Your task to perform on an android device: move a message to another label in the gmail app Image 0: 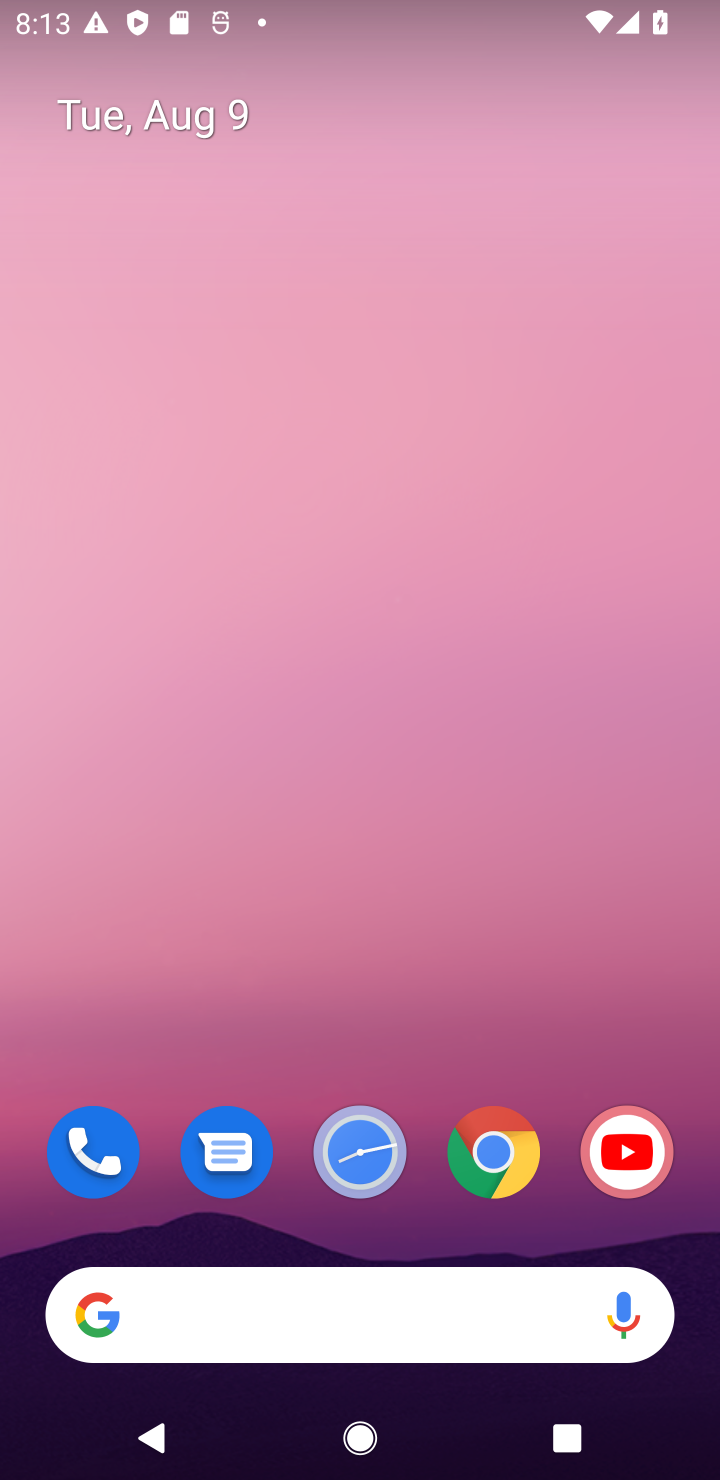
Step 0: drag from (337, 959) to (366, 290)
Your task to perform on an android device: move a message to another label in the gmail app Image 1: 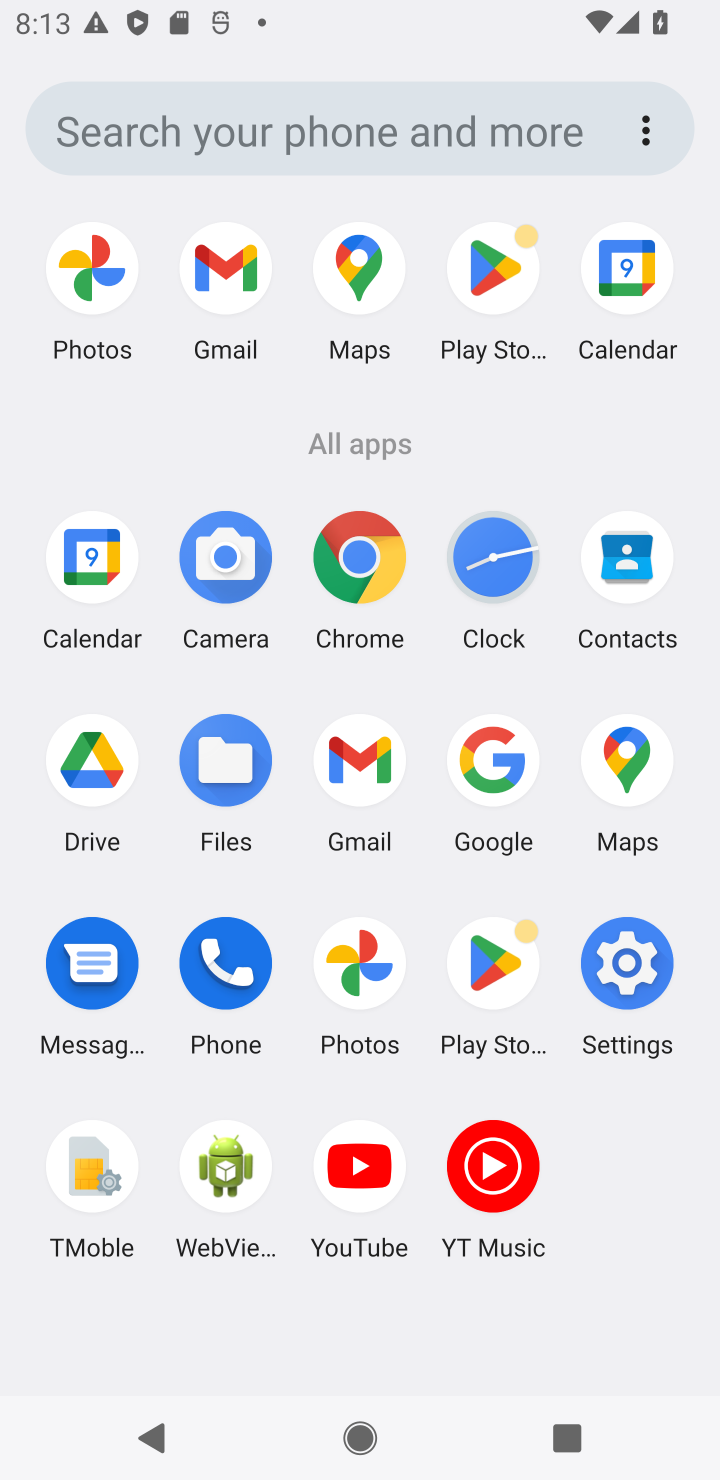
Step 1: click (384, 745)
Your task to perform on an android device: move a message to another label in the gmail app Image 2: 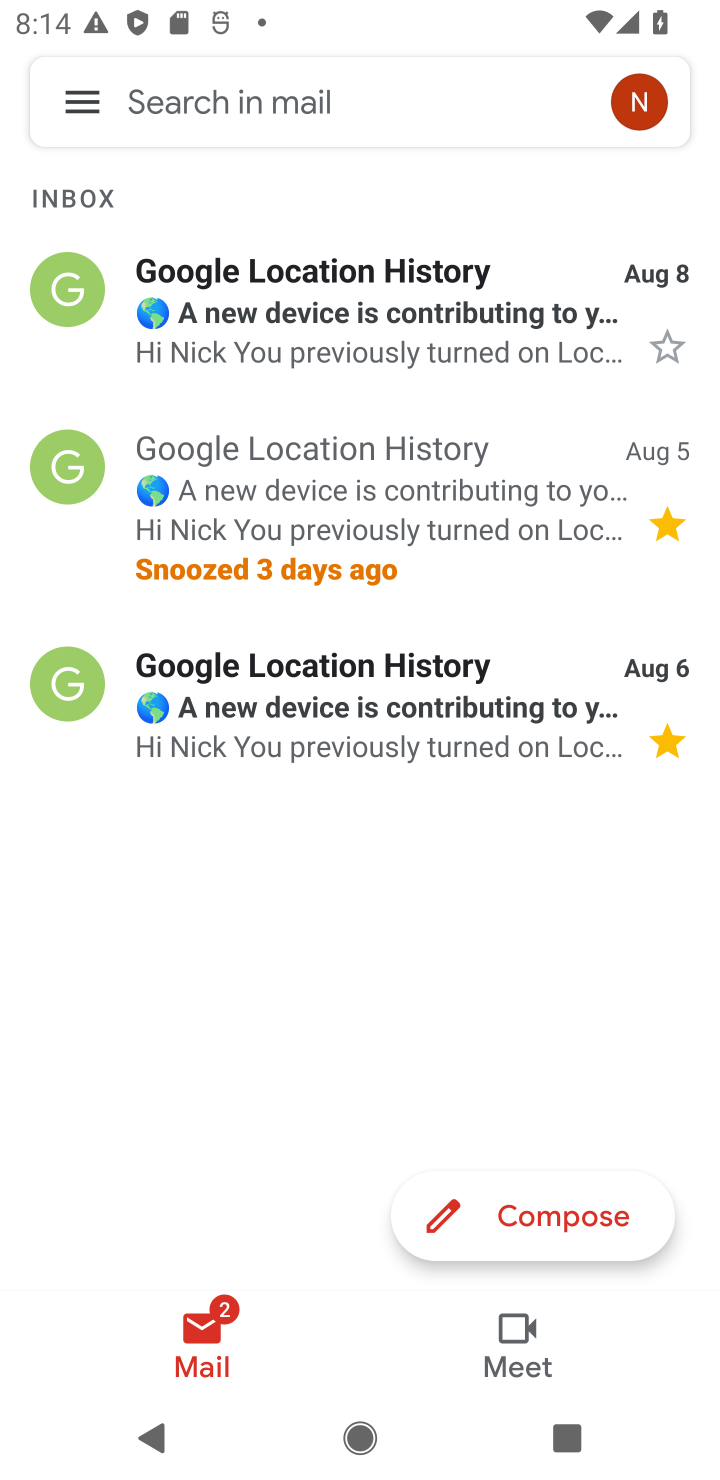
Step 2: click (87, 675)
Your task to perform on an android device: move a message to another label in the gmail app Image 3: 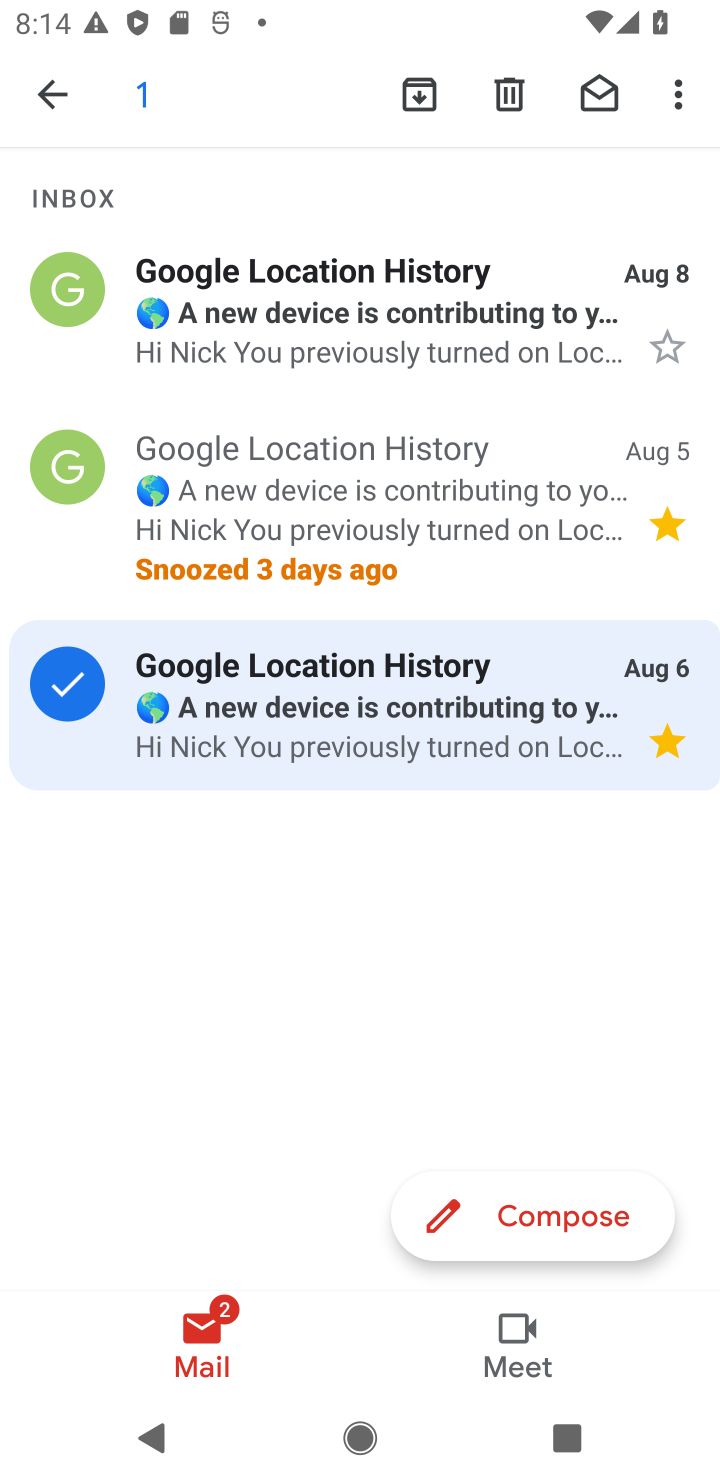
Step 3: click (695, 91)
Your task to perform on an android device: move a message to another label in the gmail app Image 4: 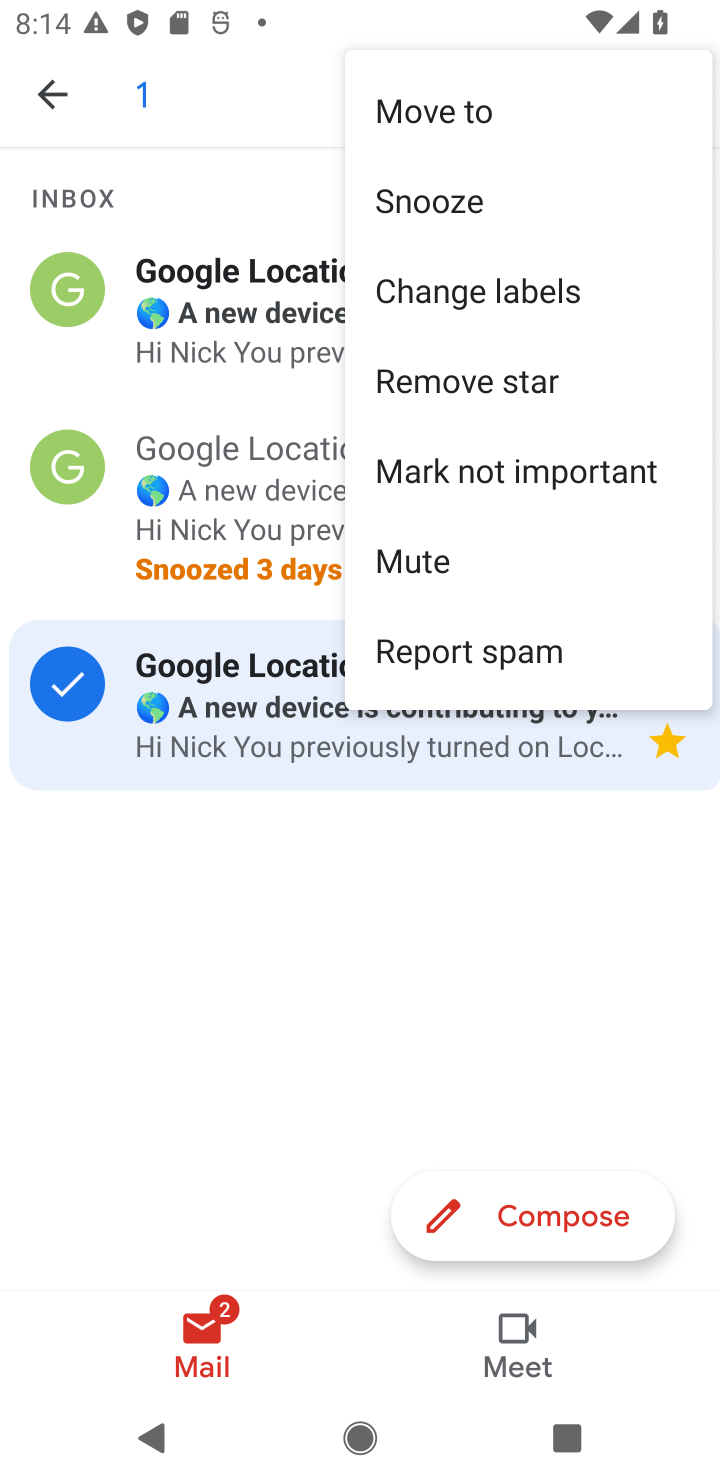
Step 4: click (604, 266)
Your task to perform on an android device: move a message to another label in the gmail app Image 5: 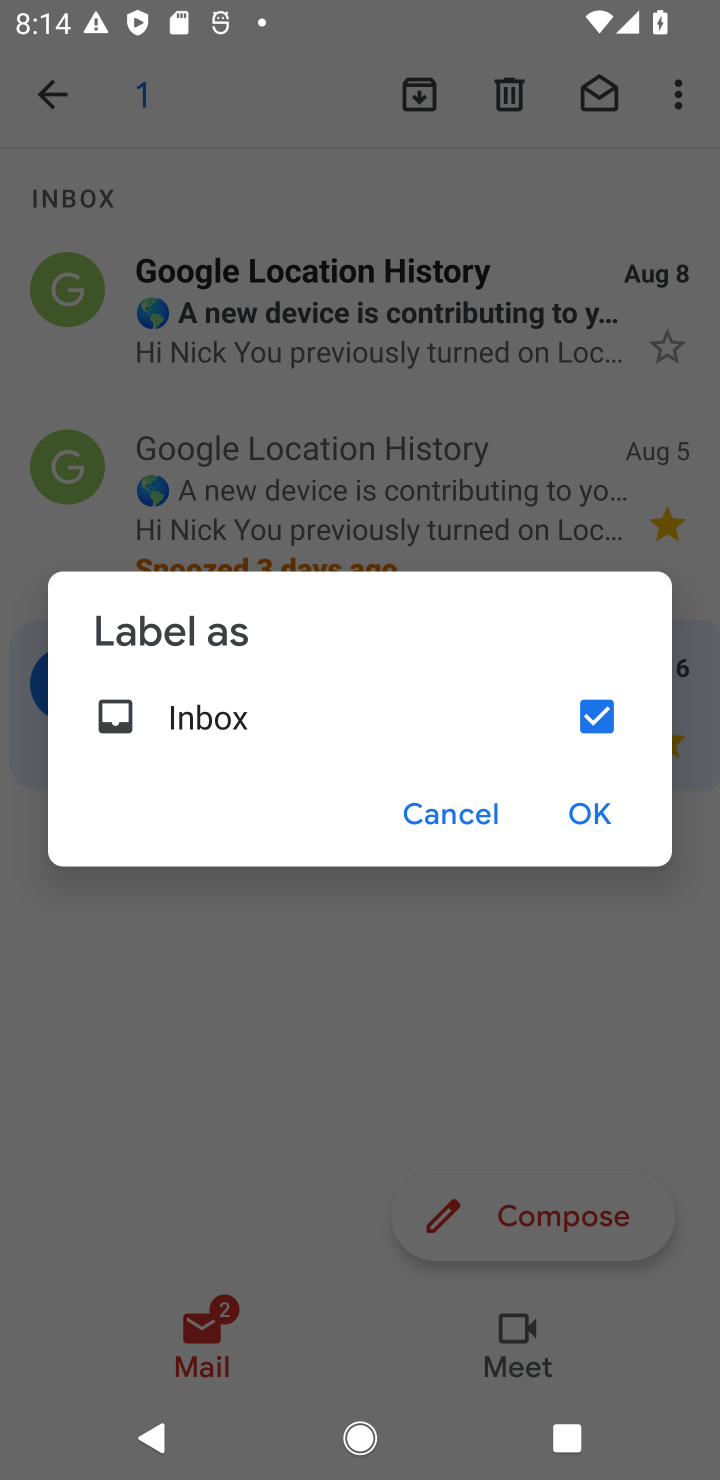
Step 5: click (580, 811)
Your task to perform on an android device: move a message to another label in the gmail app Image 6: 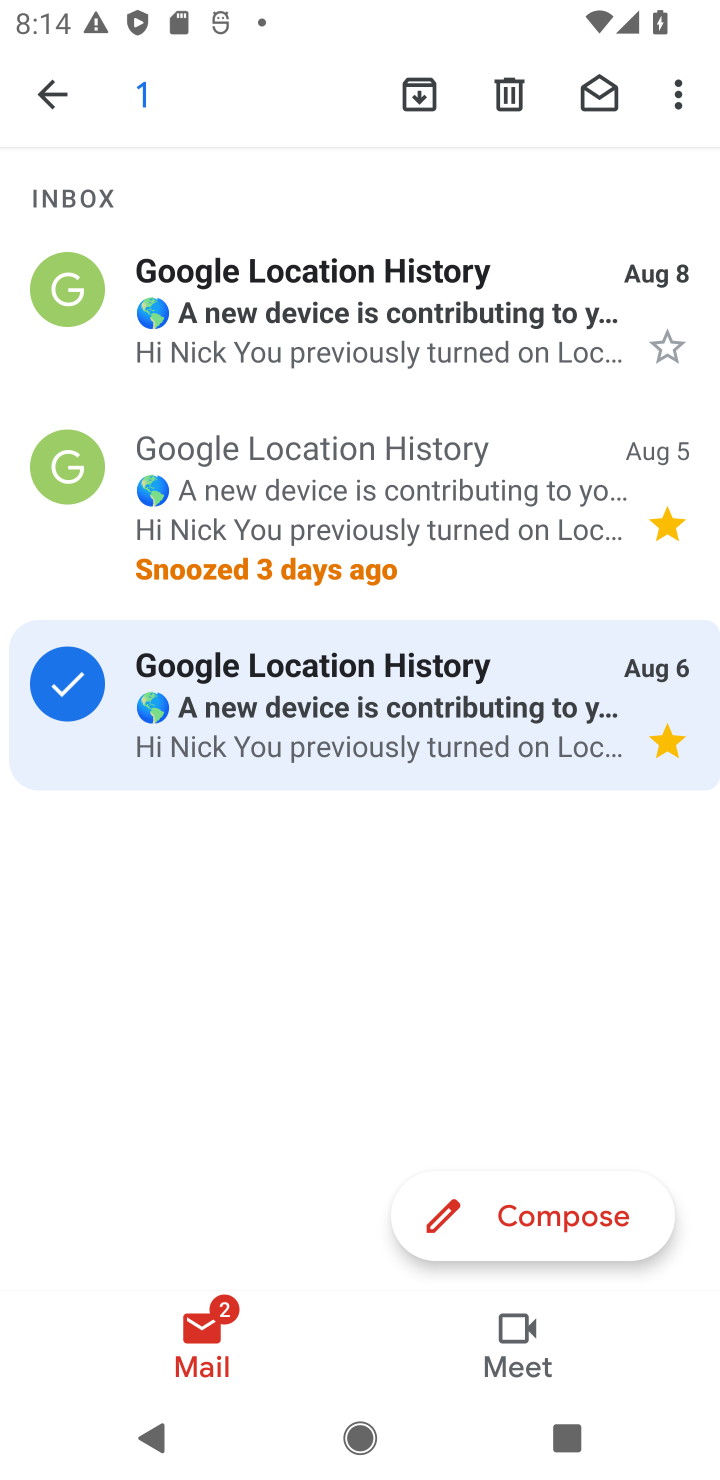
Step 6: task complete